Your task to perform on an android device: open sync settings in chrome Image 0: 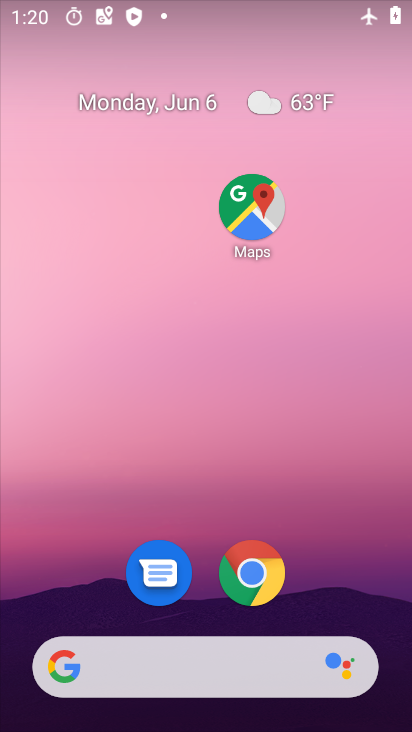
Step 0: drag from (185, 488) to (187, 14)
Your task to perform on an android device: open sync settings in chrome Image 1: 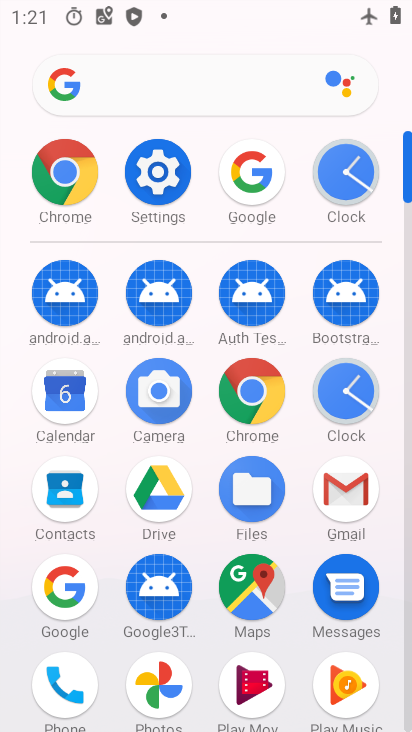
Step 1: click (244, 409)
Your task to perform on an android device: open sync settings in chrome Image 2: 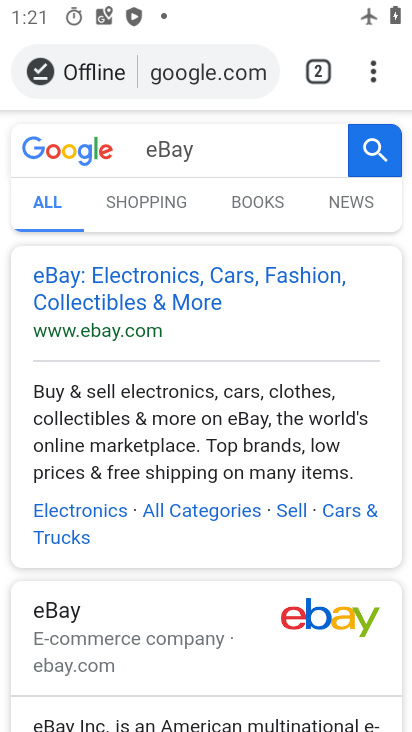
Step 2: click (372, 84)
Your task to perform on an android device: open sync settings in chrome Image 3: 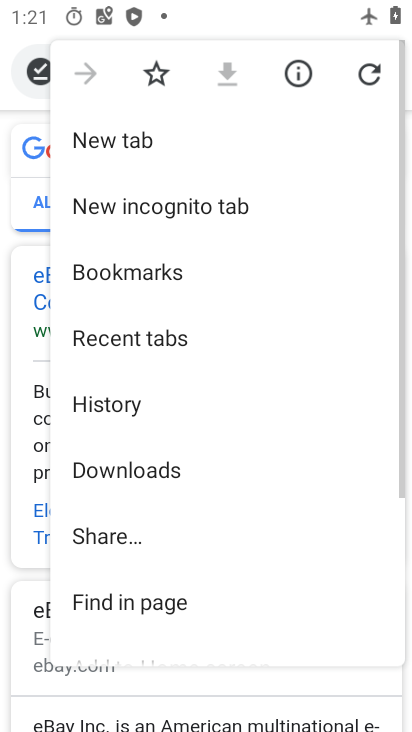
Step 3: drag from (170, 529) to (262, 106)
Your task to perform on an android device: open sync settings in chrome Image 4: 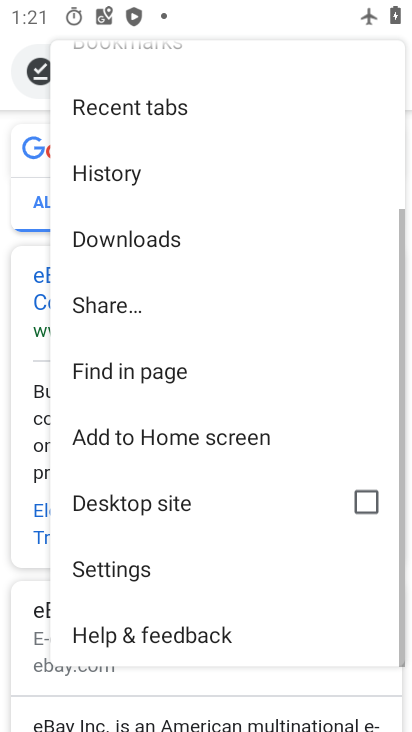
Step 4: click (163, 568)
Your task to perform on an android device: open sync settings in chrome Image 5: 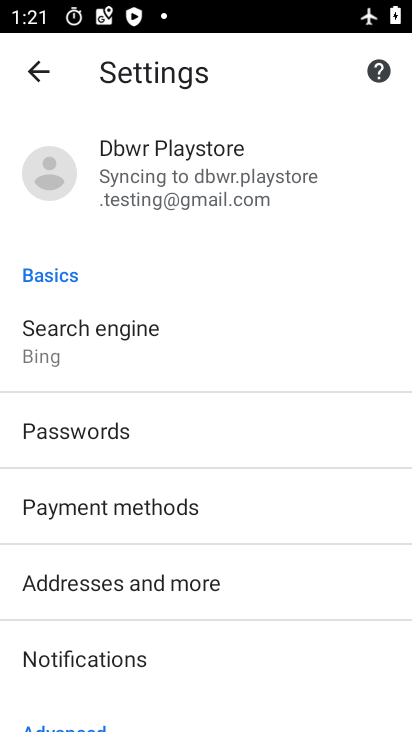
Step 5: click (193, 635)
Your task to perform on an android device: open sync settings in chrome Image 6: 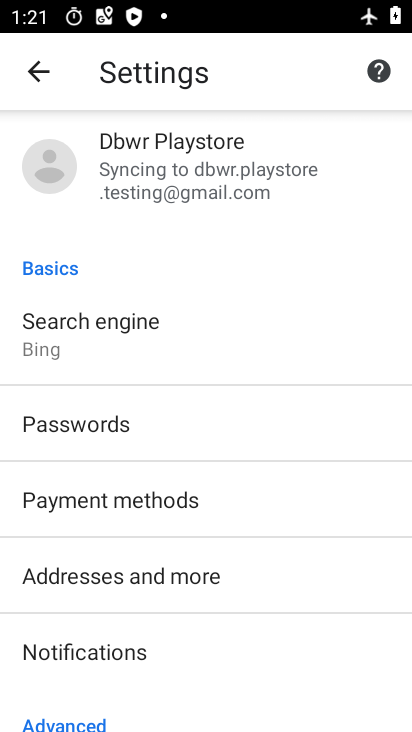
Step 6: click (231, 178)
Your task to perform on an android device: open sync settings in chrome Image 7: 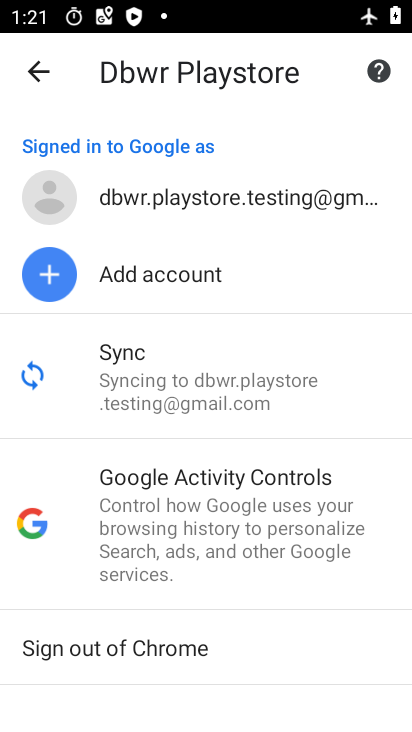
Step 7: click (211, 376)
Your task to perform on an android device: open sync settings in chrome Image 8: 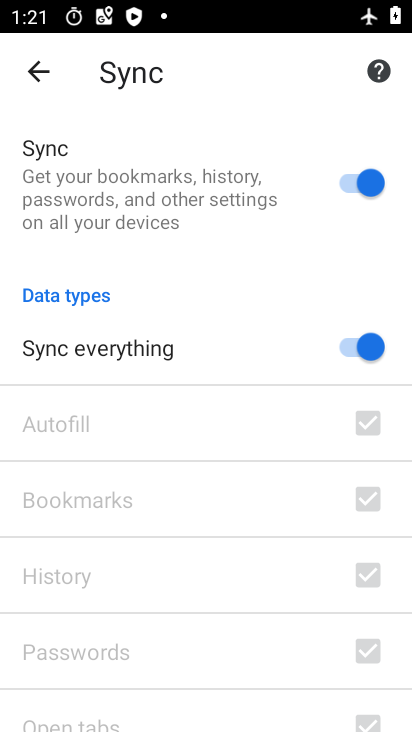
Step 8: task complete